Your task to perform on an android device: check storage Image 0: 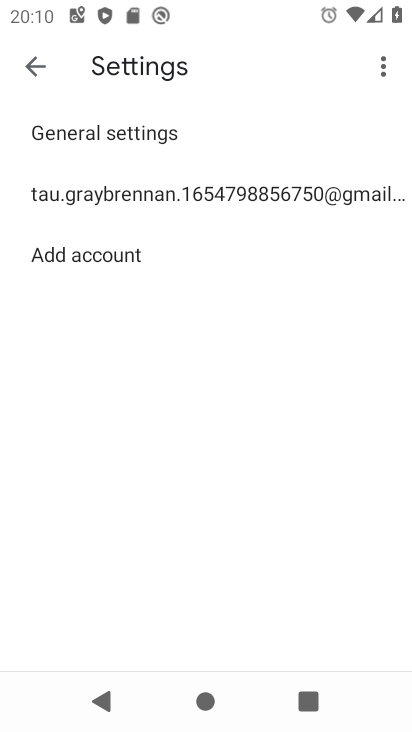
Step 0: press home button
Your task to perform on an android device: check storage Image 1: 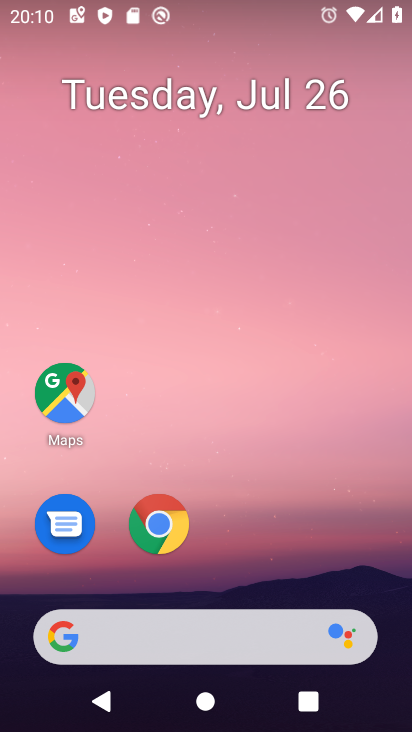
Step 1: drag from (287, 555) to (307, 45)
Your task to perform on an android device: check storage Image 2: 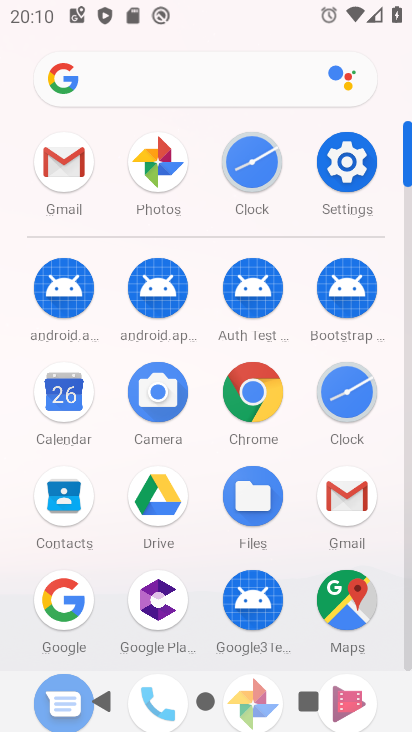
Step 2: click (345, 162)
Your task to perform on an android device: check storage Image 3: 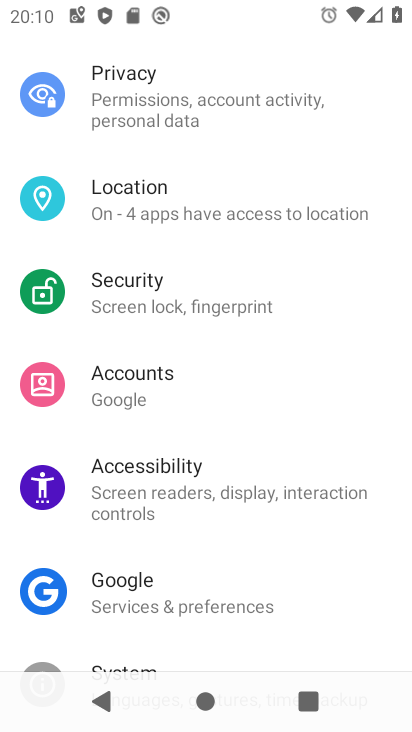
Step 3: drag from (231, 173) to (203, 540)
Your task to perform on an android device: check storage Image 4: 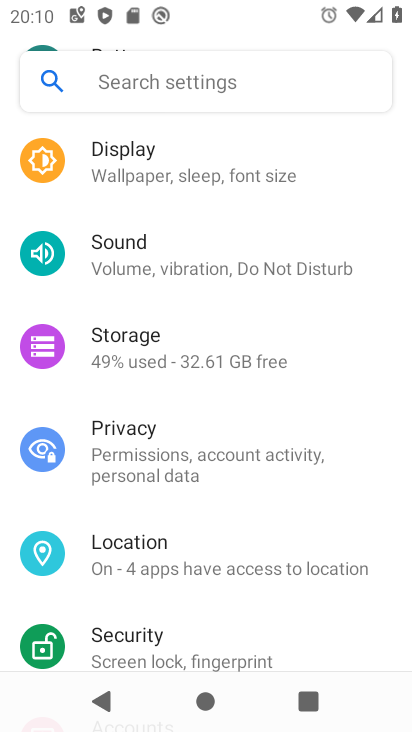
Step 4: click (174, 342)
Your task to perform on an android device: check storage Image 5: 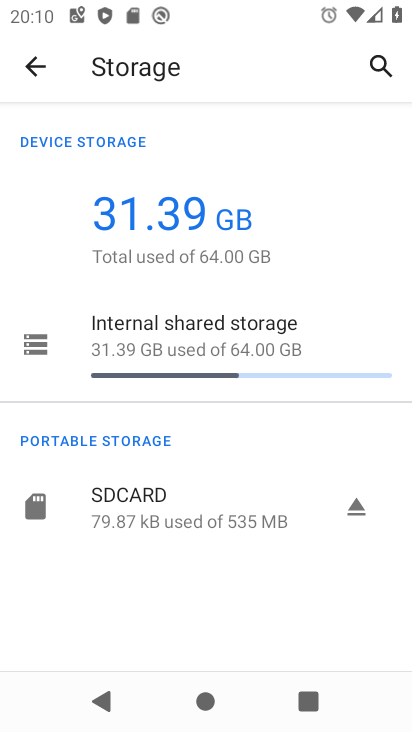
Step 5: task complete